Your task to perform on an android device: Go to Amazon Image 0: 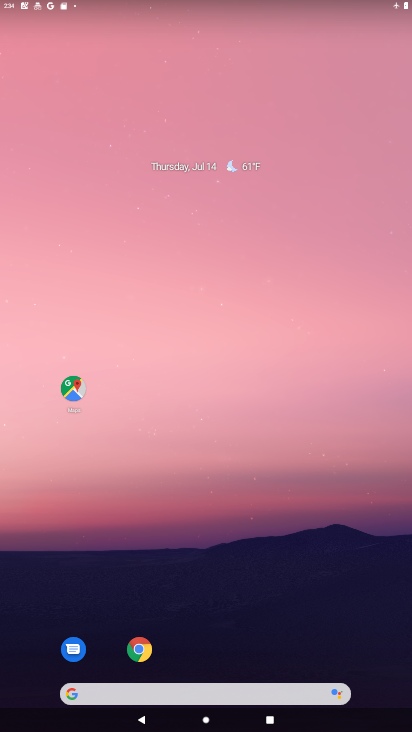
Step 0: drag from (260, 697) to (220, 63)
Your task to perform on an android device: Go to Amazon Image 1: 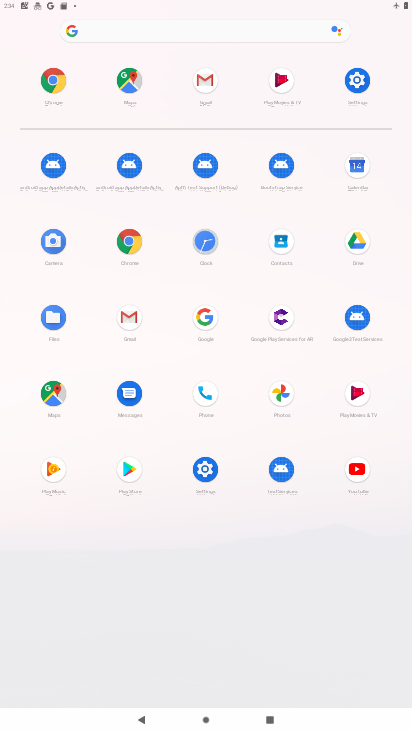
Step 1: click (140, 246)
Your task to perform on an android device: Go to Amazon Image 2: 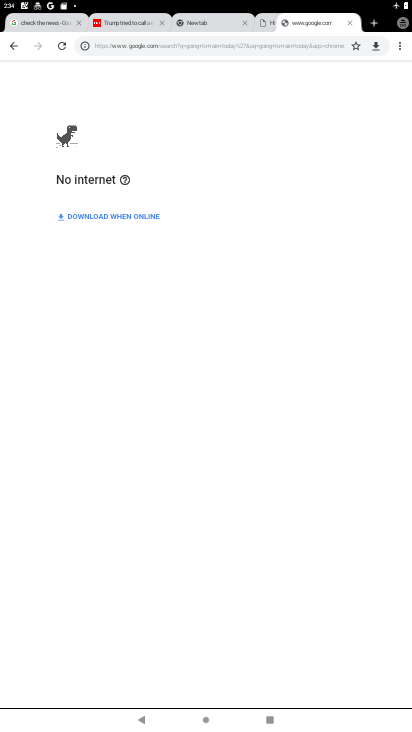
Step 2: click (212, 23)
Your task to perform on an android device: Go to Amazon Image 3: 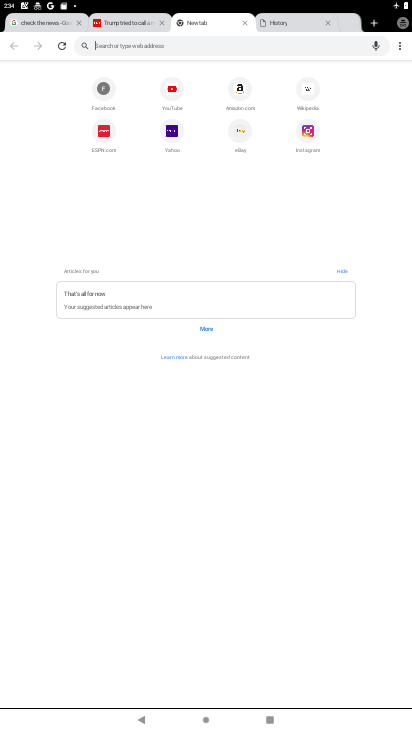
Step 3: click (240, 87)
Your task to perform on an android device: Go to Amazon Image 4: 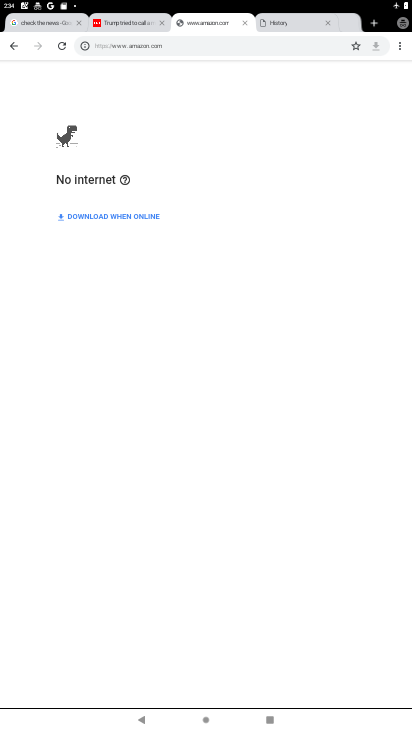
Step 4: task complete